Your task to perform on an android device: open a new tab in the chrome app Image 0: 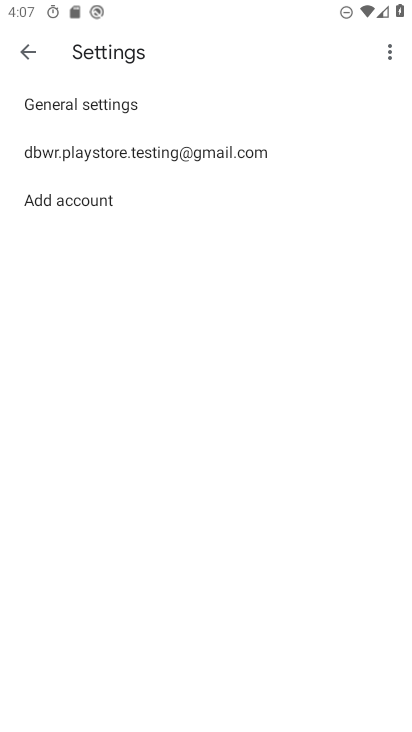
Step 0: press home button
Your task to perform on an android device: open a new tab in the chrome app Image 1: 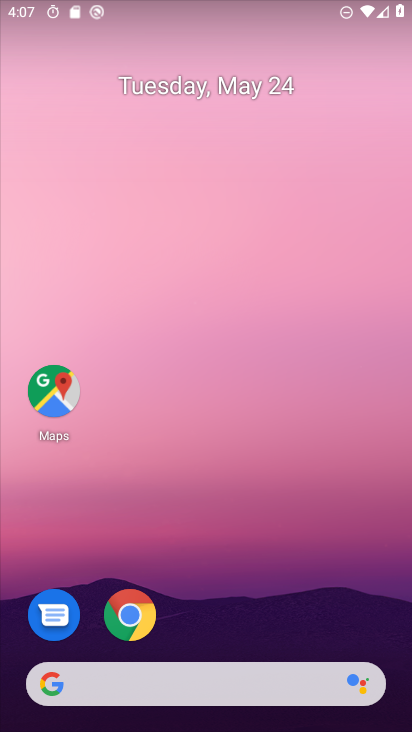
Step 1: click (135, 619)
Your task to perform on an android device: open a new tab in the chrome app Image 2: 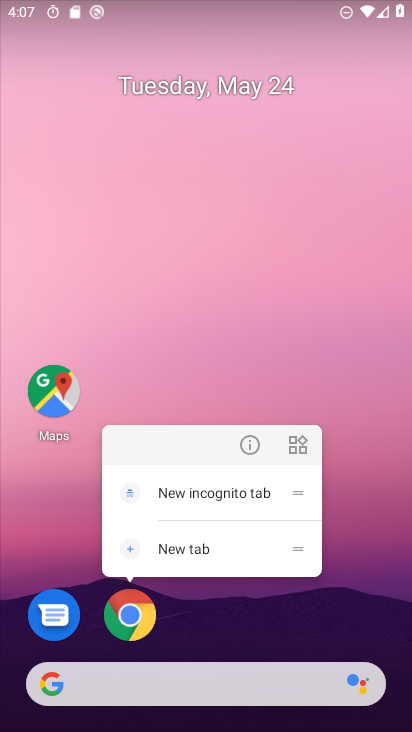
Step 2: click (134, 618)
Your task to perform on an android device: open a new tab in the chrome app Image 3: 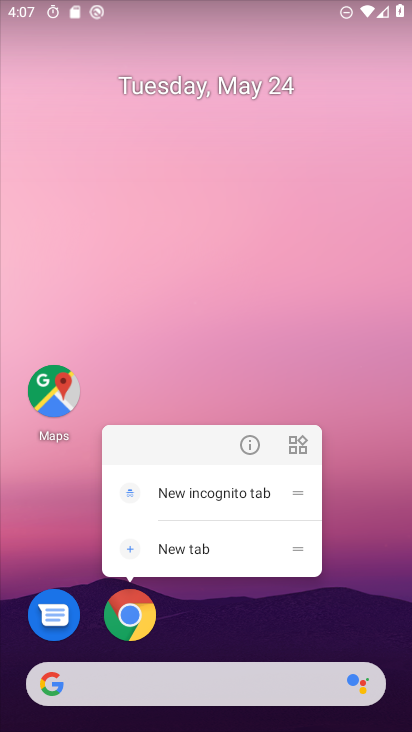
Step 3: click (134, 618)
Your task to perform on an android device: open a new tab in the chrome app Image 4: 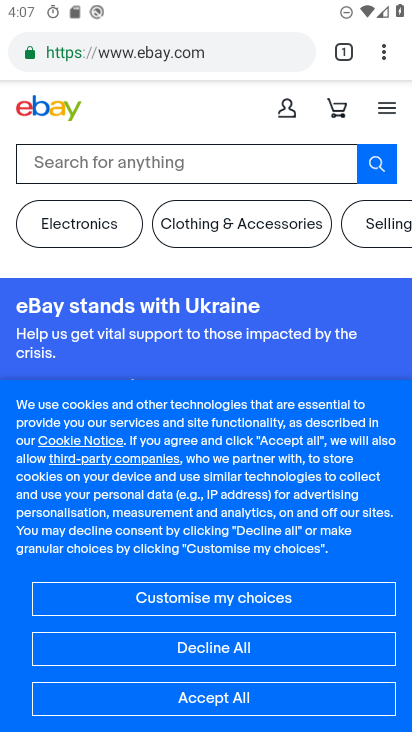
Step 4: drag from (348, 53) to (348, 253)
Your task to perform on an android device: open a new tab in the chrome app Image 5: 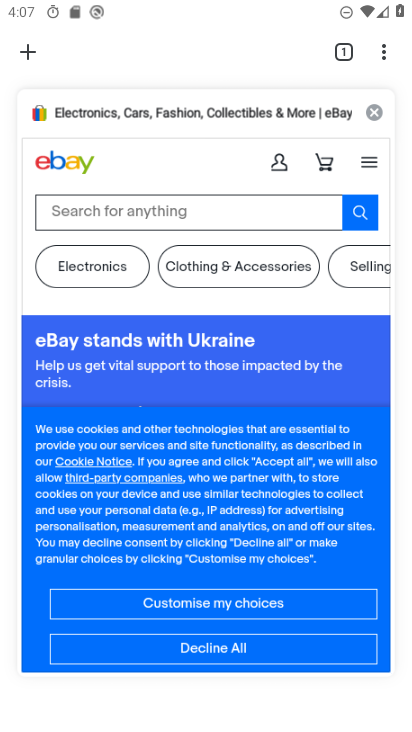
Step 5: click (20, 51)
Your task to perform on an android device: open a new tab in the chrome app Image 6: 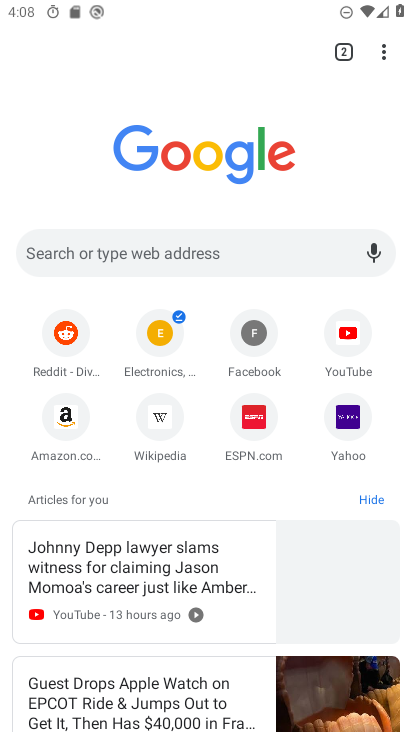
Step 6: task complete